Your task to perform on an android device: What is the capital of India? Image 0: 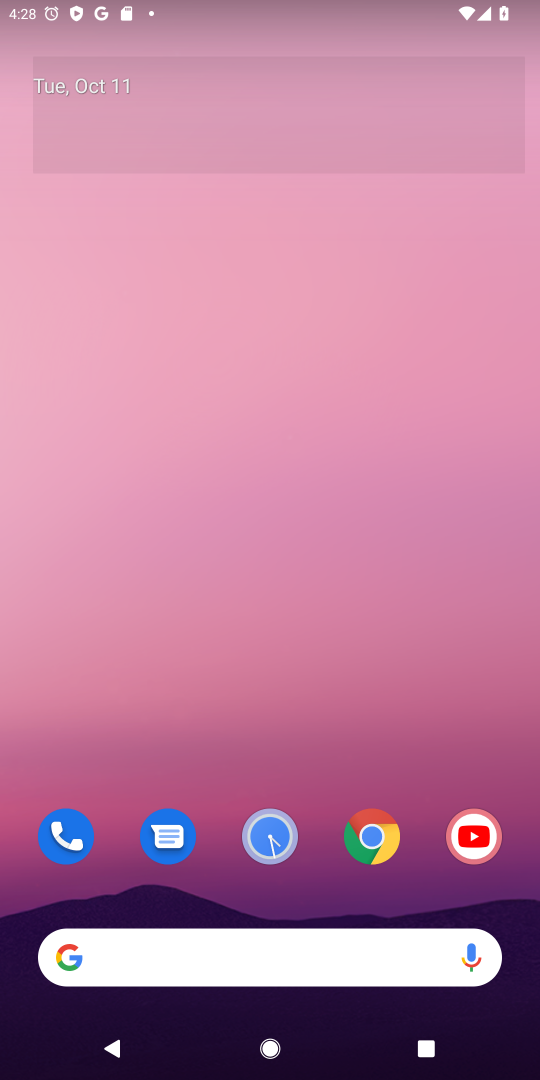
Step 0: click (291, 950)
Your task to perform on an android device: What is the capital of India? Image 1: 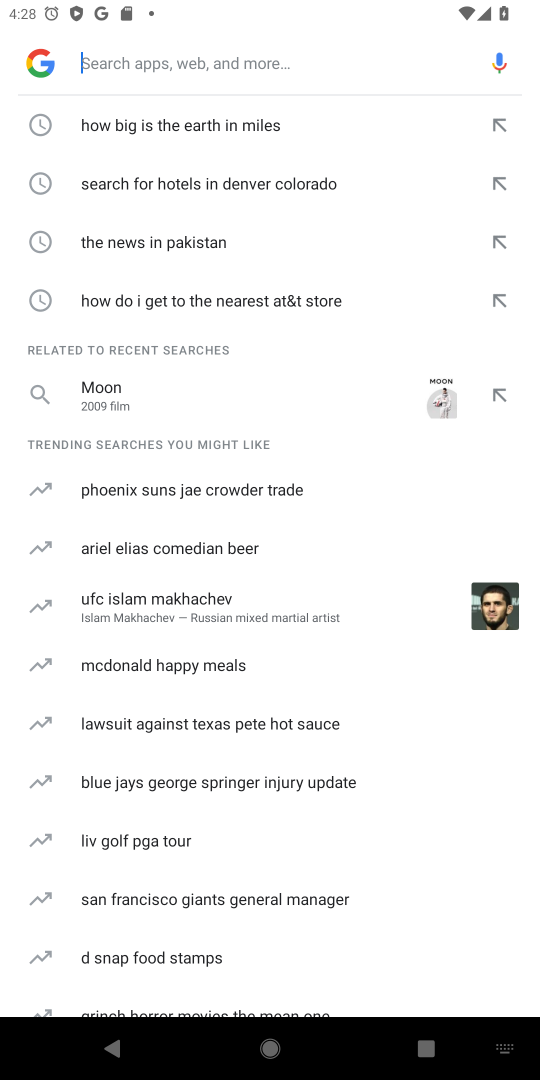
Step 1: type "What is the capital of India?"
Your task to perform on an android device: What is the capital of India? Image 2: 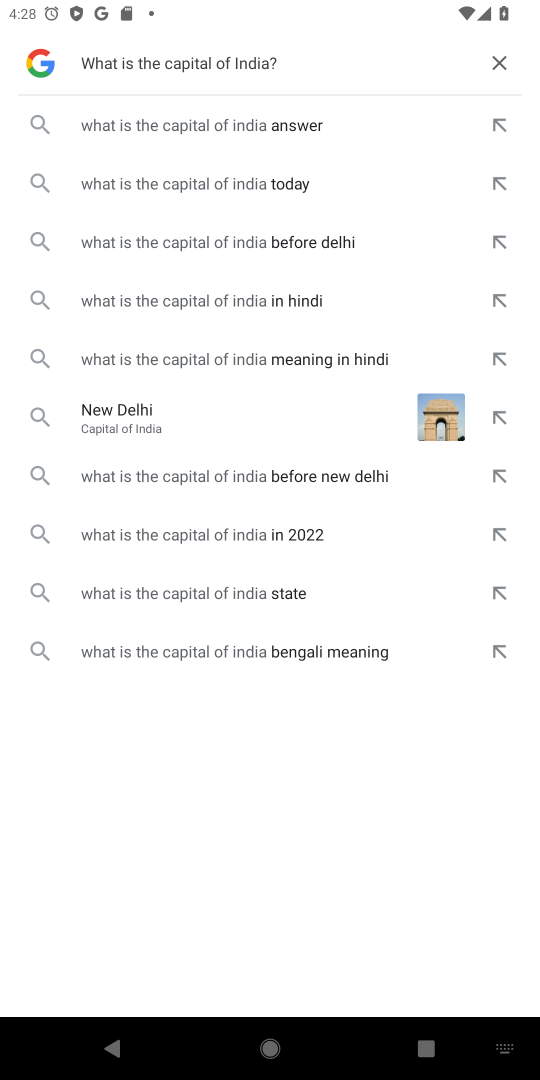
Step 2: click (192, 142)
Your task to perform on an android device: What is the capital of India? Image 3: 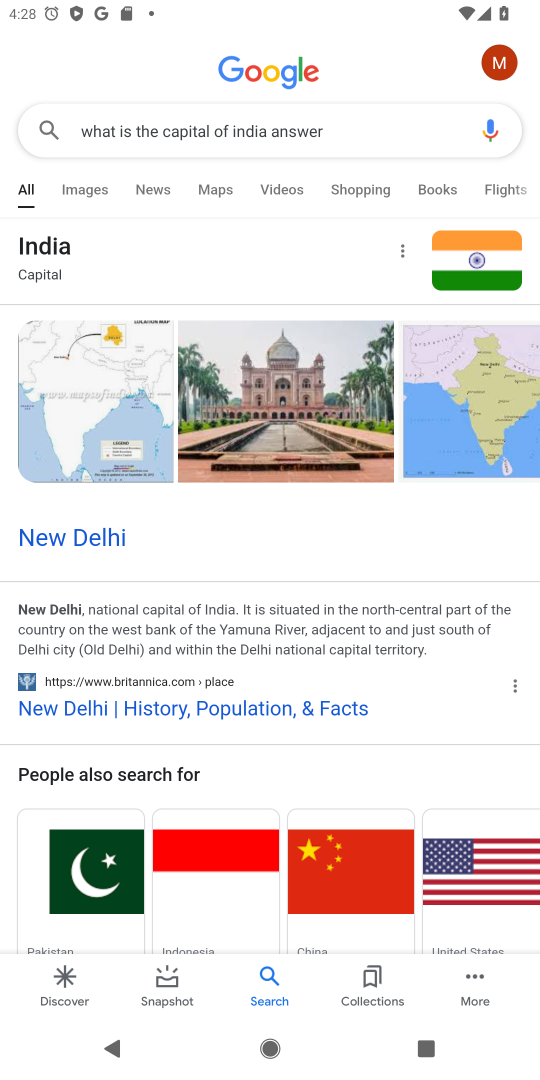
Step 3: task complete